Your task to perform on an android device: add a contact Image 0: 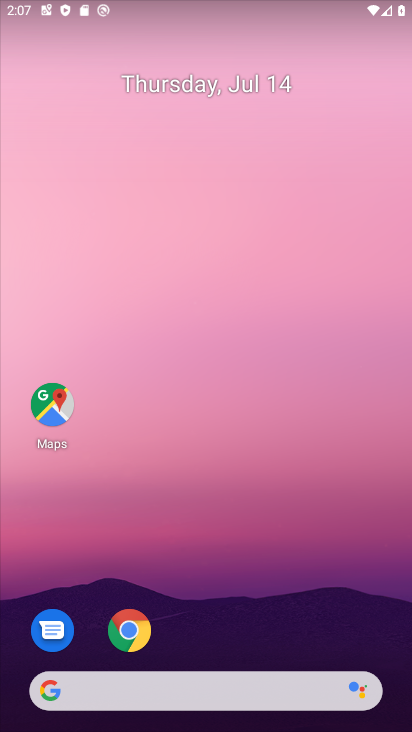
Step 0: drag from (323, 628) to (361, 180)
Your task to perform on an android device: add a contact Image 1: 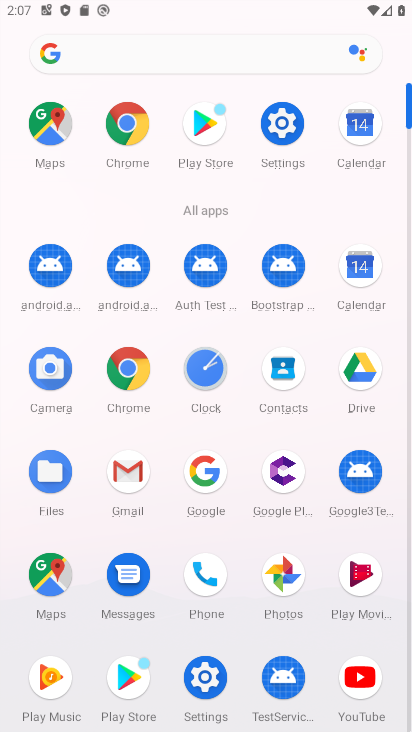
Step 1: click (298, 364)
Your task to perform on an android device: add a contact Image 2: 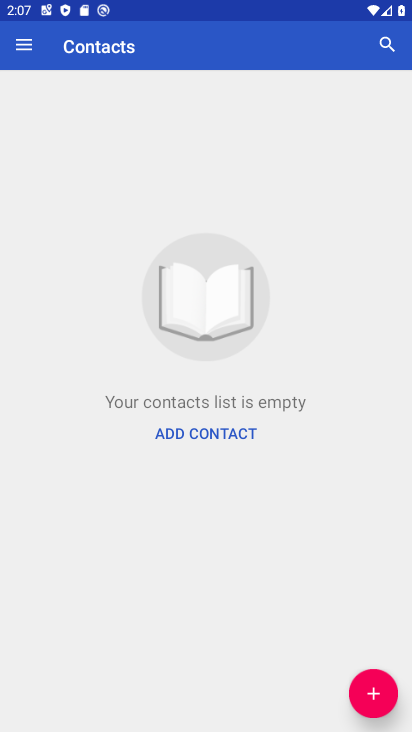
Step 2: task complete